Your task to perform on an android device: Open Chrome and go to settings Image 0: 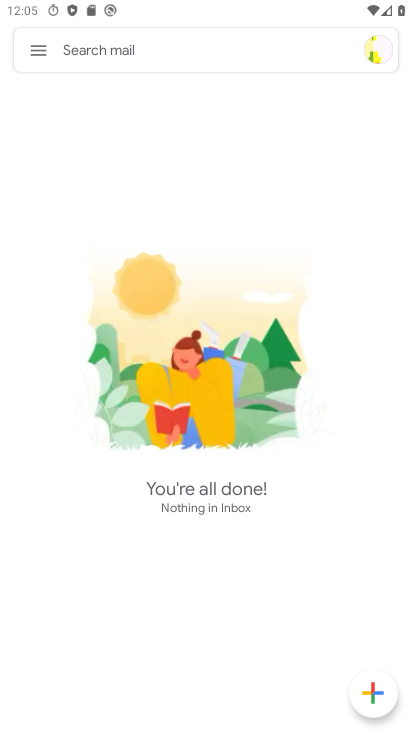
Step 0: press back button
Your task to perform on an android device: Open Chrome and go to settings Image 1: 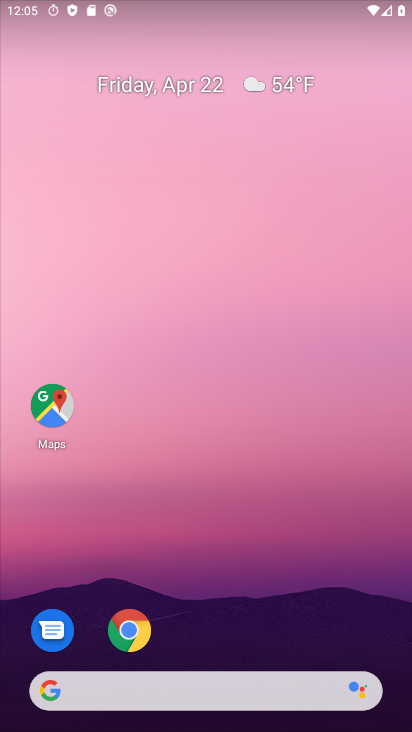
Step 1: click (129, 635)
Your task to perform on an android device: Open Chrome and go to settings Image 2: 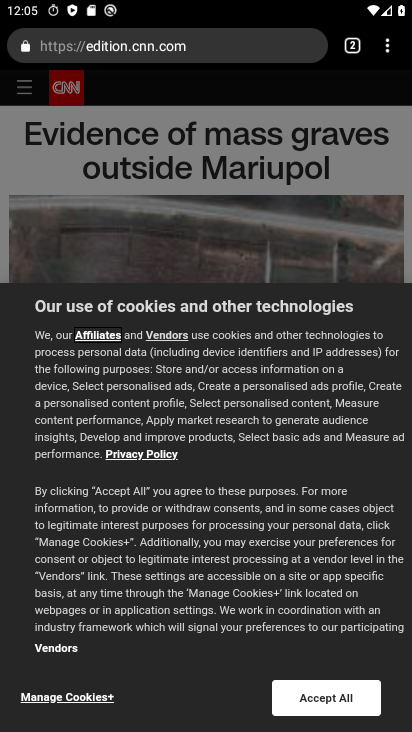
Step 2: click (389, 47)
Your task to perform on an android device: Open Chrome and go to settings Image 3: 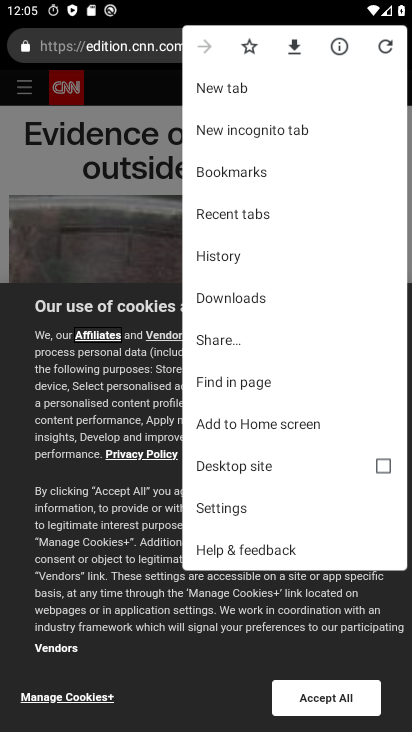
Step 3: click (232, 505)
Your task to perform on an android device: Open Chrome and go to settings Image 4: 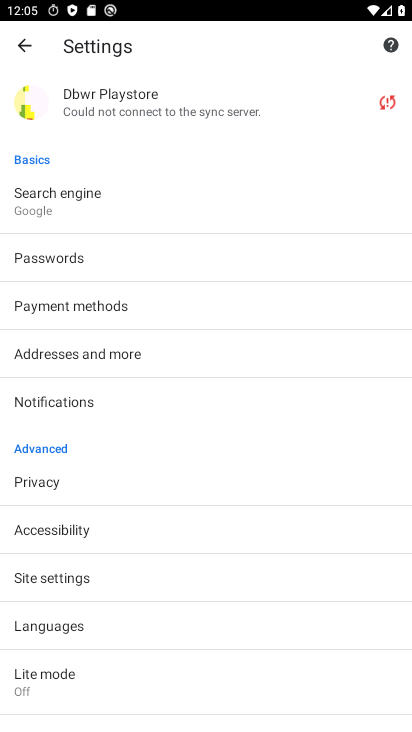
Step 4: task complete